Your task to perform on an android device: change text size in settings app Image 0: 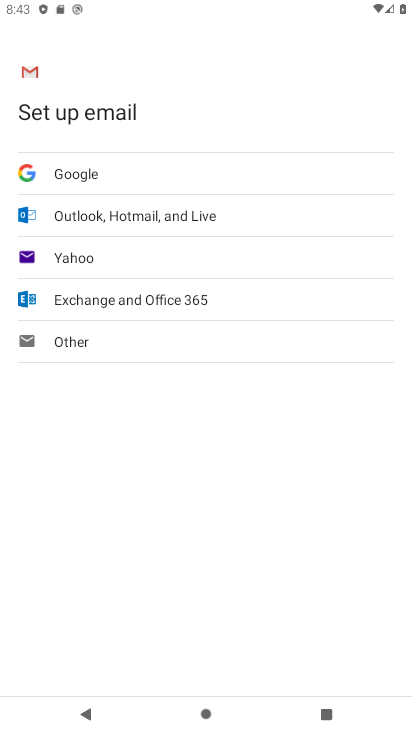
Step 0: press home button
Your task to perform on an android device: change text size in settings app Image 1: 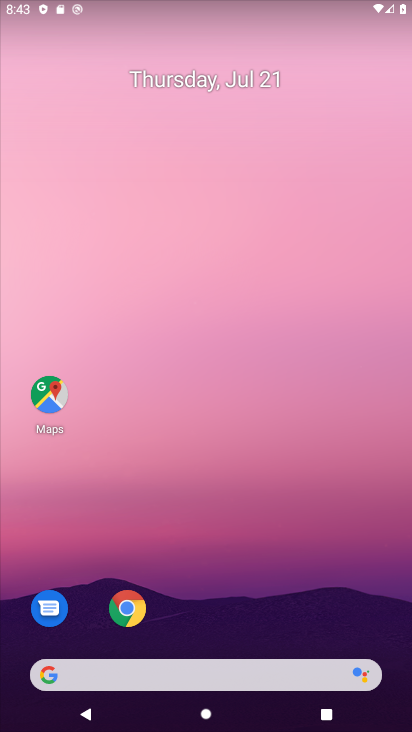
Step 1: drag from (210, 617) to (144, 121)
Your task to perform on an android device: change text size in settings app Image 2: 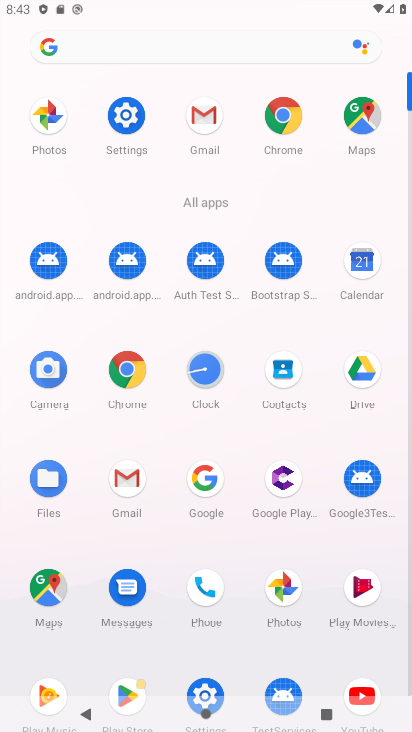
Step 2: click (132, 117)
Your task to perform on an android device: change text size in settings app Image 3: 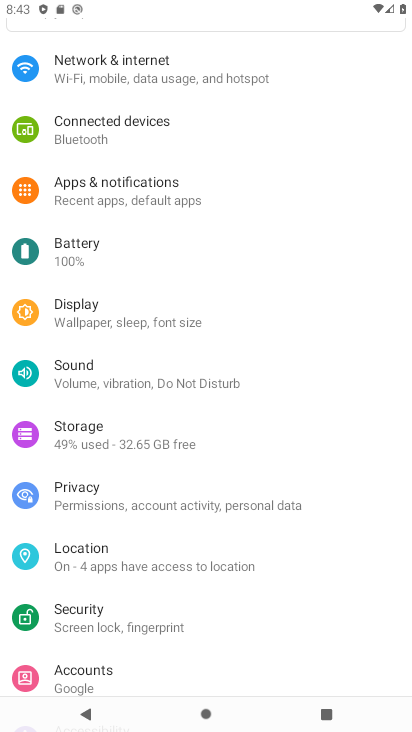
Step 3: click (153, 320)
Your task to perform on an android device: change text size in settings app Image 4: 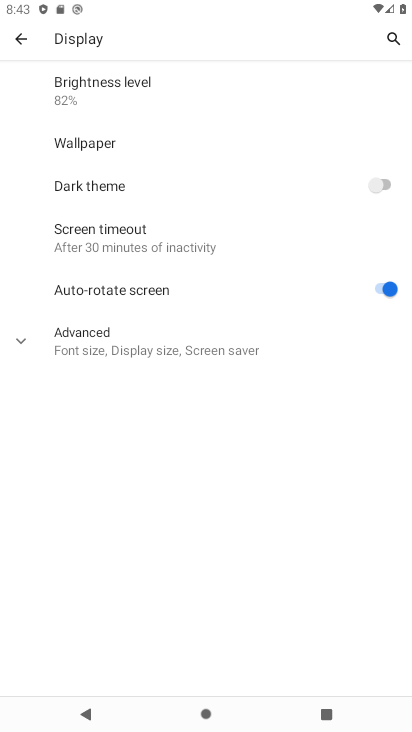
Step 4: click (158, 341)
Your task to perform on an android device: change text size in settings app Image 5: 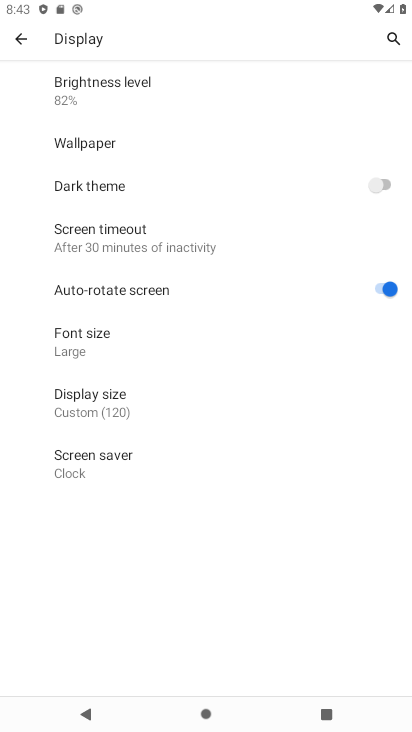
Step 5: drag from (159, 394) to (143, 344)
Your task to perform on an android device: change text size in settings app Image 6: 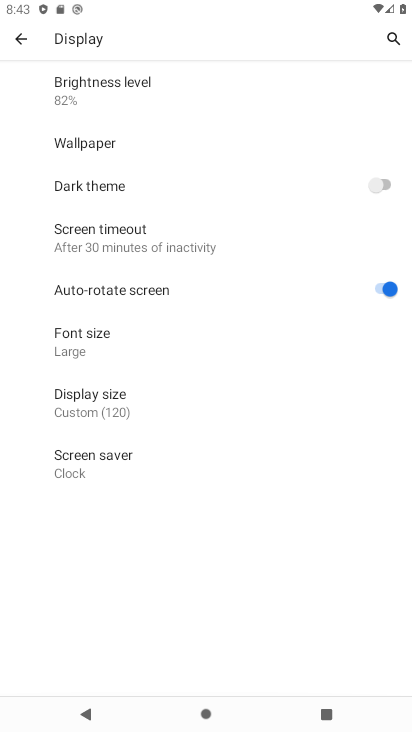
Step 6: click (143, 344)
Your task to perform on an android device: change text size in settings app Image 7: 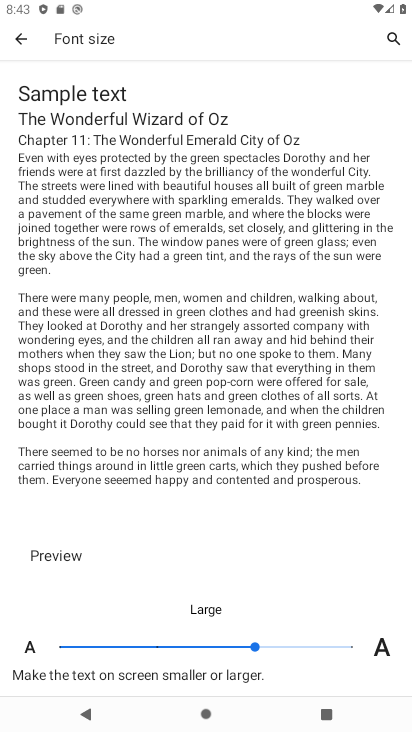
Step 7: click (345, 647)
Your task to perform on an android device: change text size in settings app Image 8: 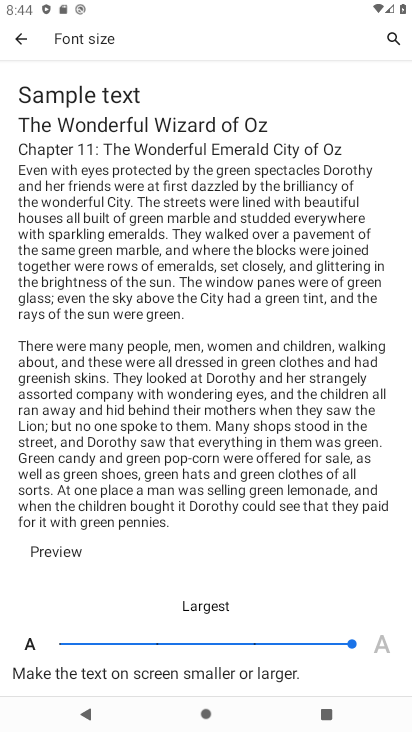
Step 8: task complete